Your task to perform on an android device: Show me popular videos on Youtube Image 0: 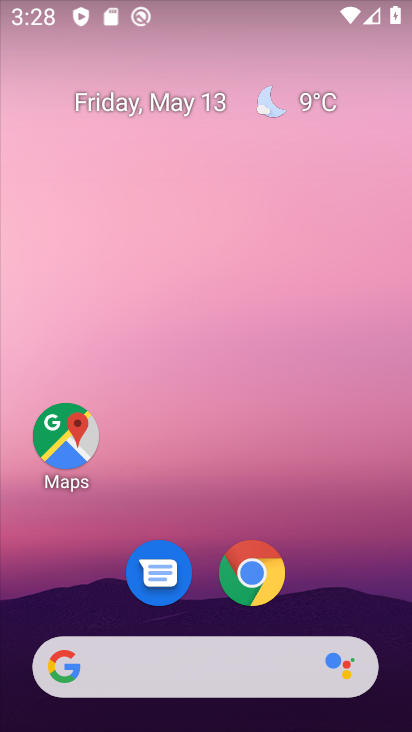
Step 0: press home button
Your task to perform on an android device: Show me popular videos on Youtube Image 1: 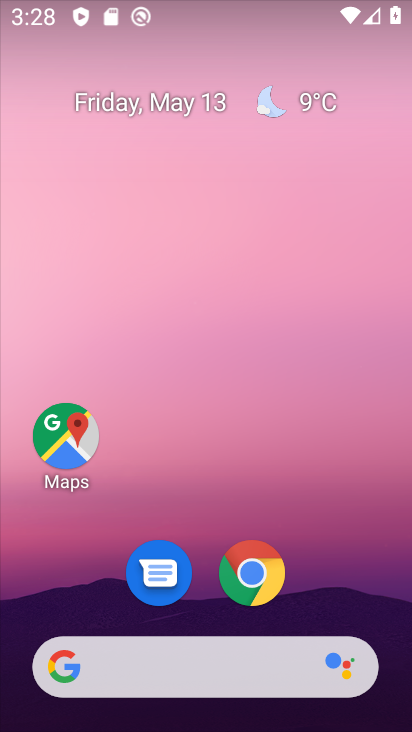
Step 1: drag from (205, 616) to (174, 238)
Your task to perform on an android device: Show me popular videos on Youtube Image 2: 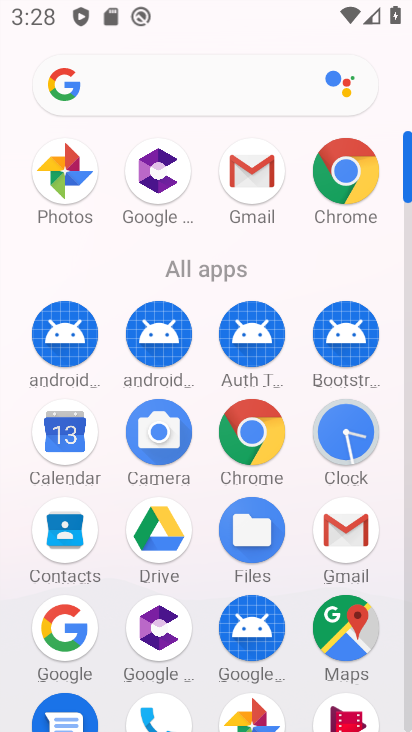
Step 2: drag from (294, 674) to (282, 423)
Your task to perform on an android device: Show me popular videos on Youtube Image 3: 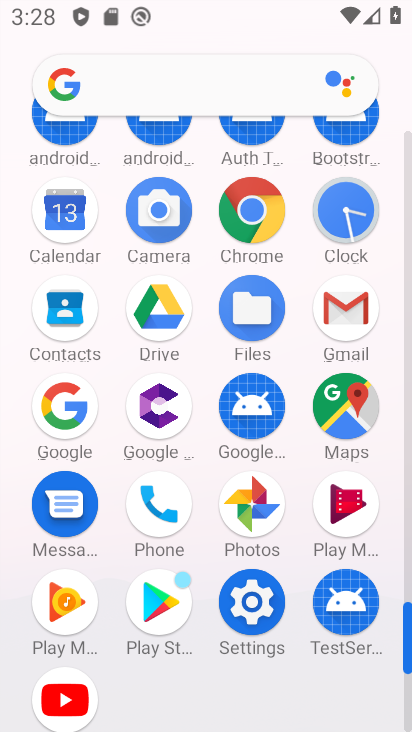
Step 3: click (57, 693)
Your task to perform on an android device: Show me popular videos on Youtube Image 4: 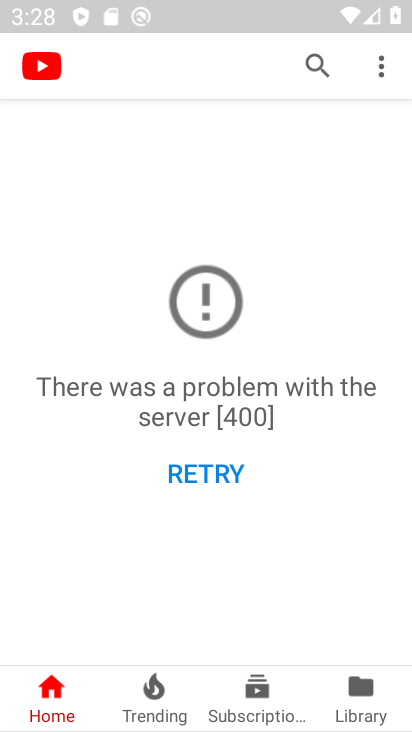
Step 4: task complete